Your task to perform on an android device: refresh tabs in the chrome app Image 0: 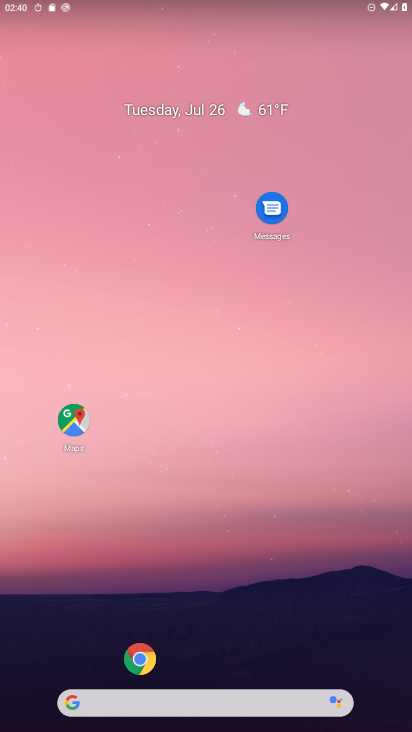
Step 0: click (137, 675)
Your task to perform on an android device: refresh tabs in the chrome app Image 1: 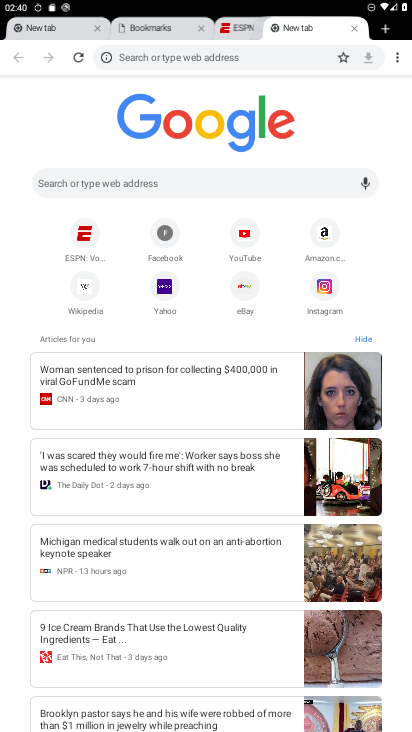
Step 1: click (139, 656)
Your task to perform on an android device: refresh tabs in the chrome app Image 2: 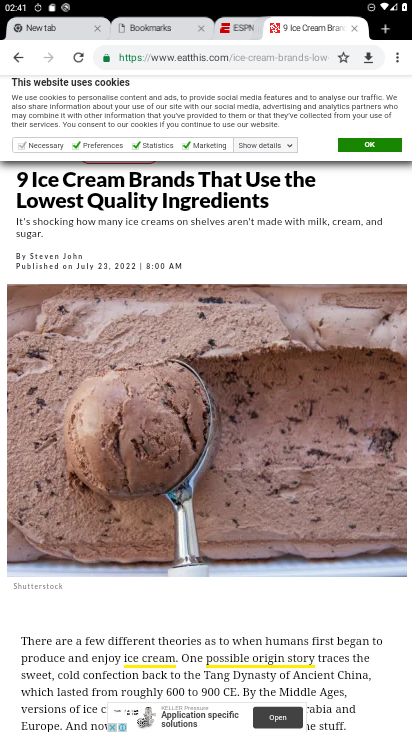
Step 2: click (379, 28)
Your task to perform on an android device: refresh tabs in the chrome app Image 3: 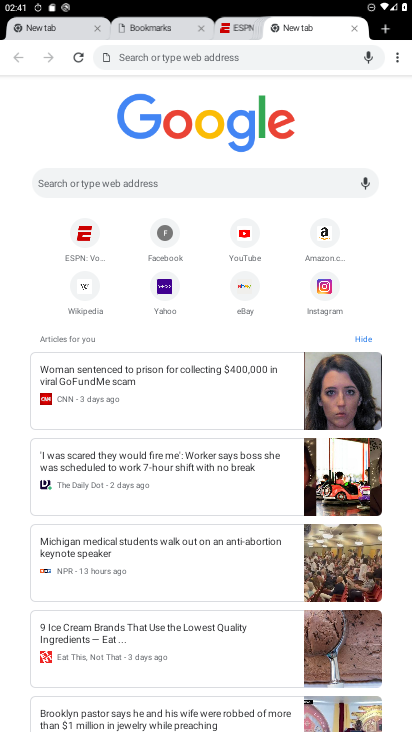
Step 3: task complete